Your task to perform on an android device: Open Google Maps and go to "Timeline" Image 0: 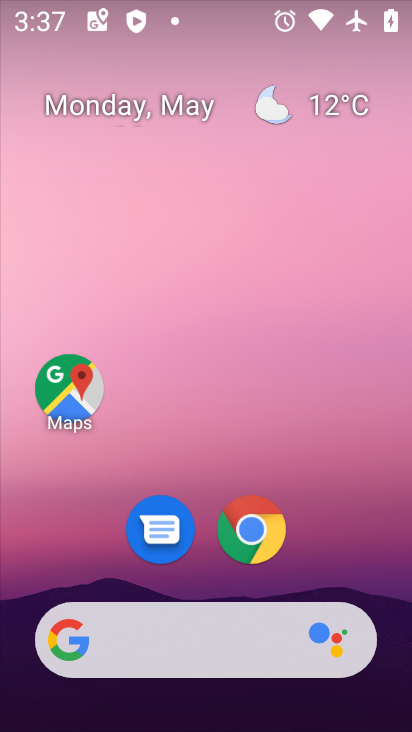
Step 0: click (56, 382)
Your task to perform on an android device: Open Google Maps and go to "Timeline" Image 1: 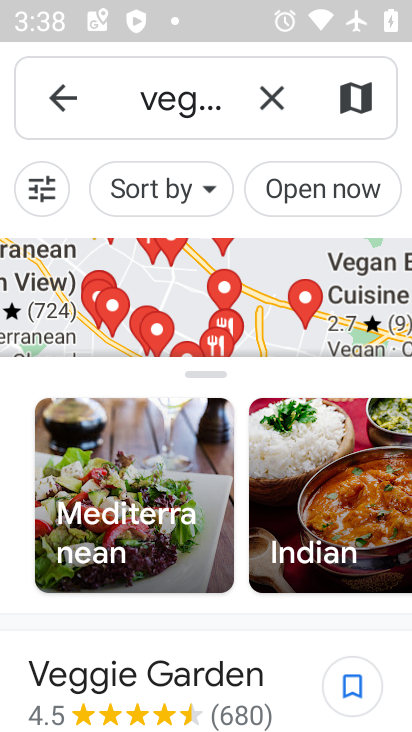
Step 1: click (65, 94)
Your task to perform on an android device: Open Google Maps and go to "Timeline" Image 2: 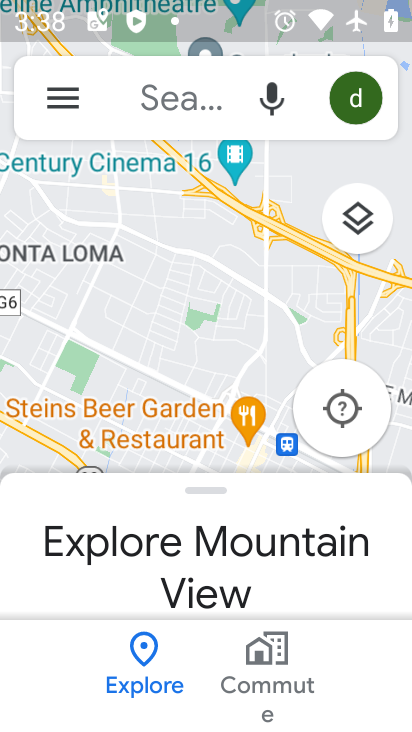
Step 2: click (61, 103)
Your task to perform on an android device: Open Google Maps and go to "Timeline" Image 3: 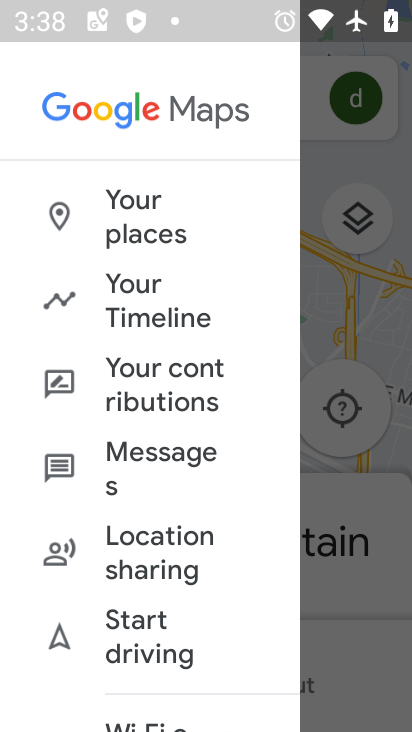
Step 3: click (105, 320)
Your task to perform on an android device: Open Google Maps and go to "Timeline" Image 4: 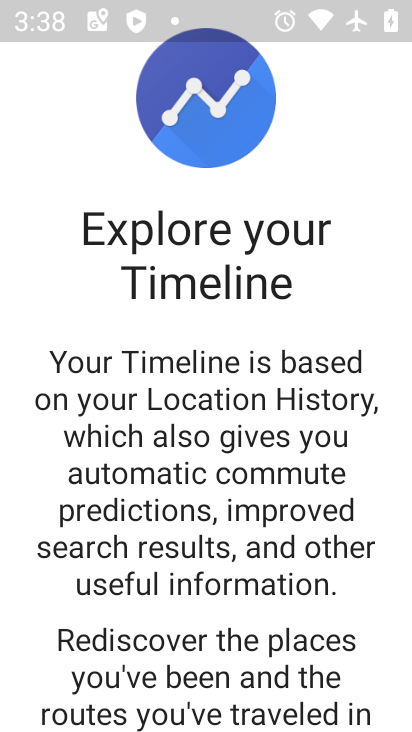
Step 4: drag from (87, 590) to (99, 177)
Your task to perform on an android device: Open Google Maps and go to "Timeline" Image 5: 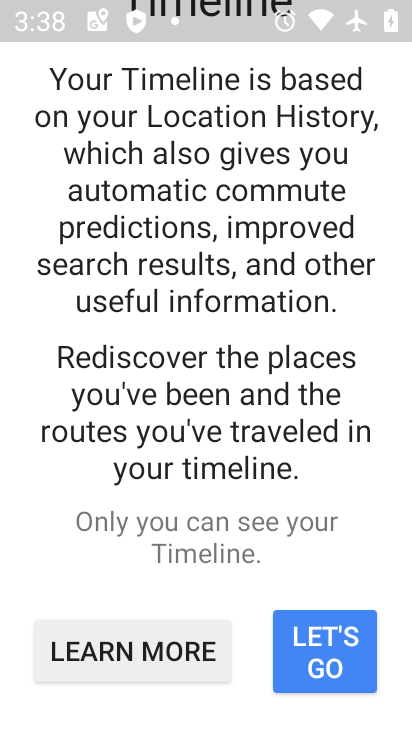
Step 5: click (315, 668)
Your task to perform on an android device: Open Google Maps and go to "Timeline" Image 6: 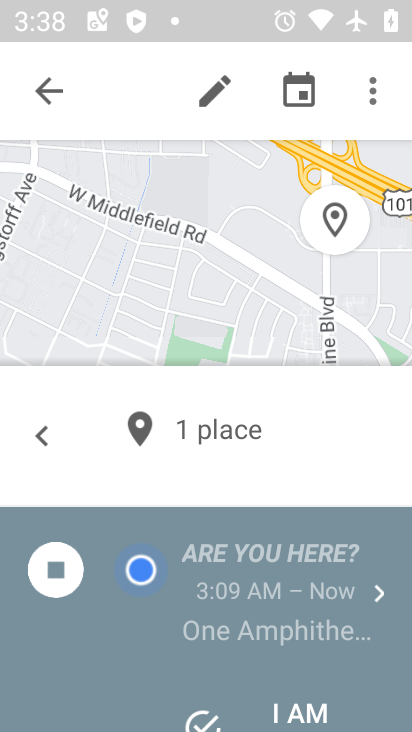
Step 6: task complete